Your task to perform on an android device: Open settings Image 0: 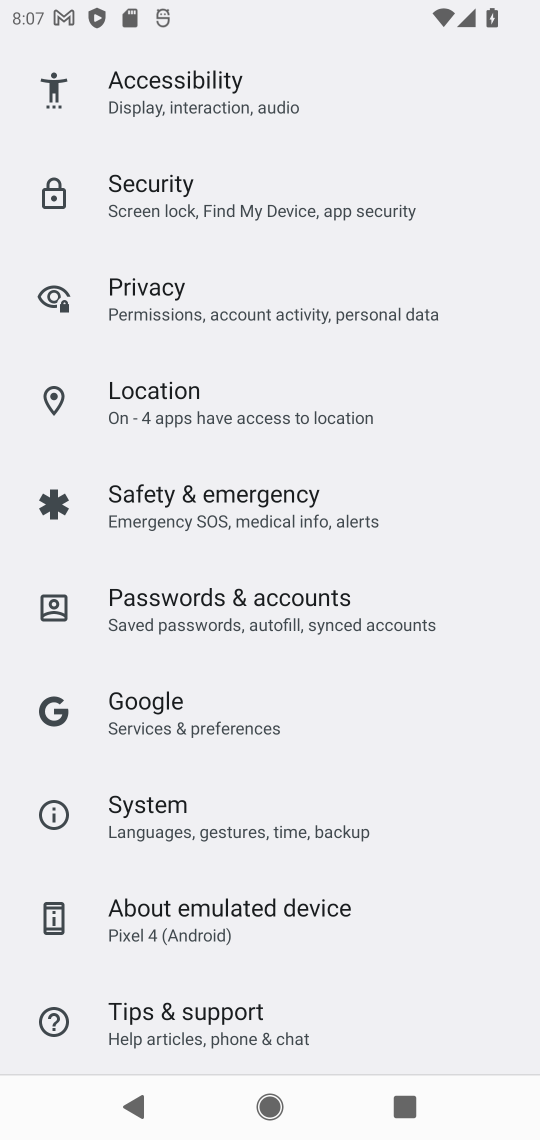
Step 0: task complete